Your task to perform on an android device: see creations saved in the google photos Image 0: 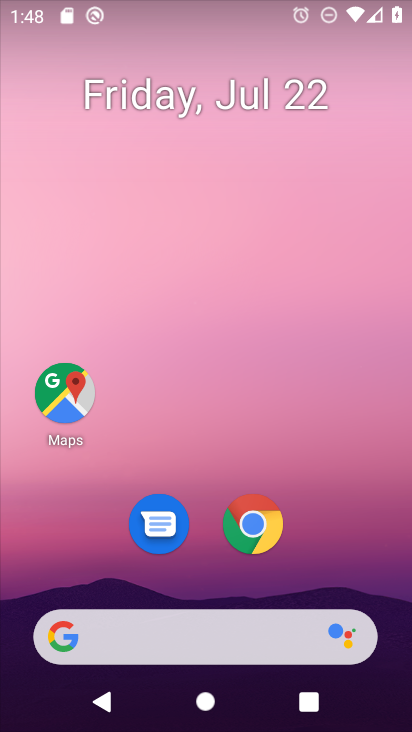
Step 0: drag from (339, 543) to (329, 100)
Your task to perform on an android device: see creations saved in the google photos Image 1: 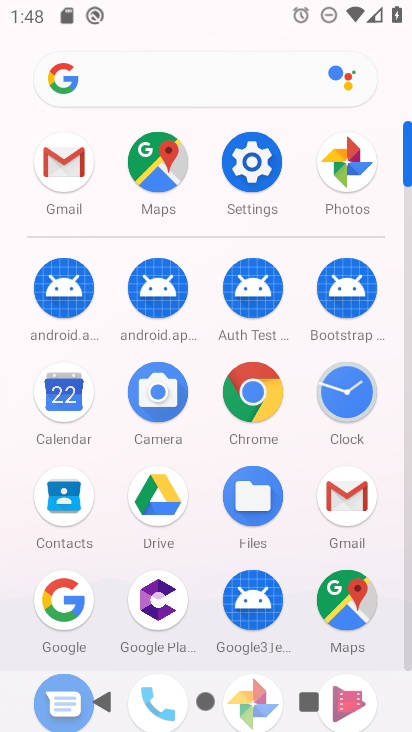
Step 1: click (339, 163)
Your task to perform on an android device: see creations saved in the google photos Image 2: 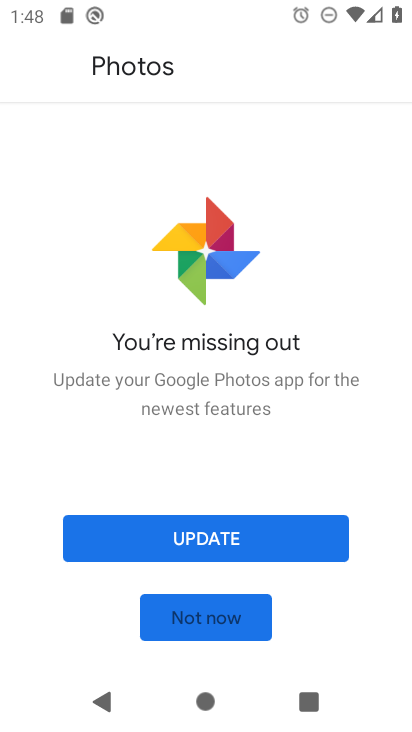
Step 2: click (244, 614)
Your task to perform on an android device: see creations saved in the google photos Image 3: 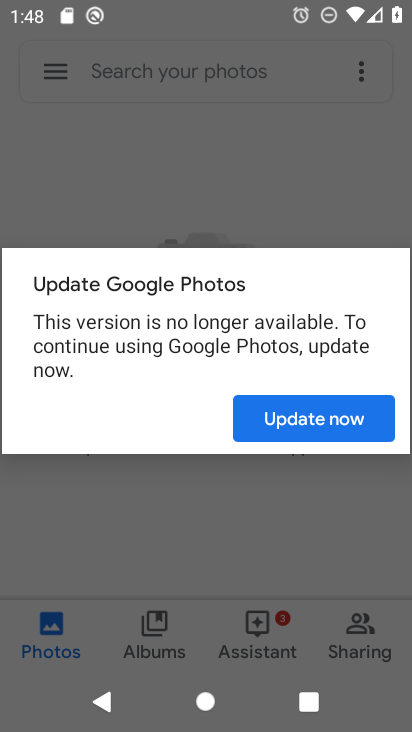
Step 3: click (322, 419)
Your task to perform on an android device: see creations saved in the google photos Image 4: 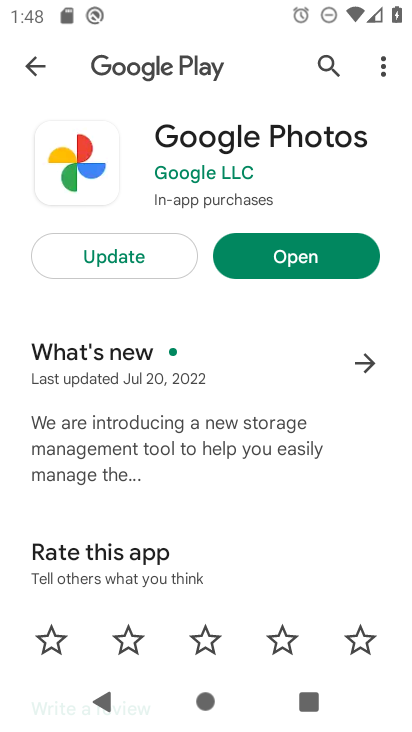
Step 4: click (313, 260)
Your task to perform on an android device: see creations saved in the google photos Image 5: 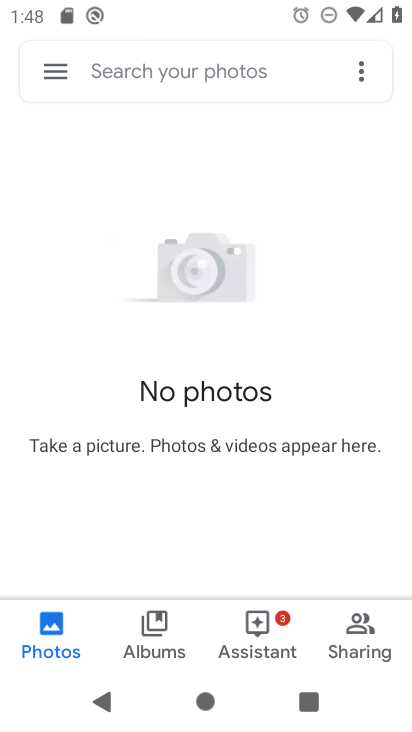
Step 5: click (247, 70)
Your task to perform on an android device: see creations saved in the google photos Image 6: 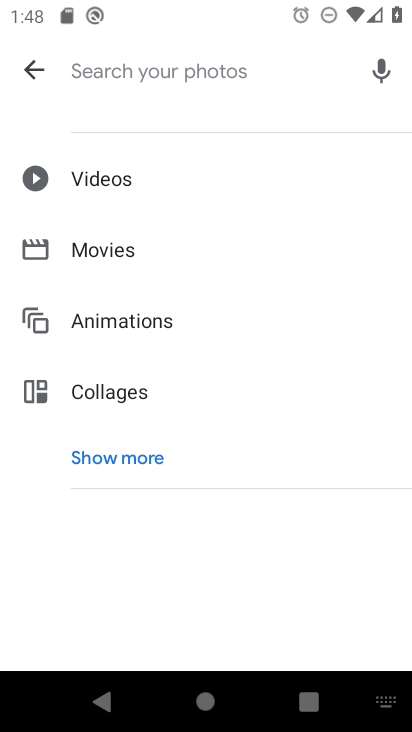
Step 6: click (129, 447)
Your task to perform on an android device: see creations saved in the google photos Image 7: 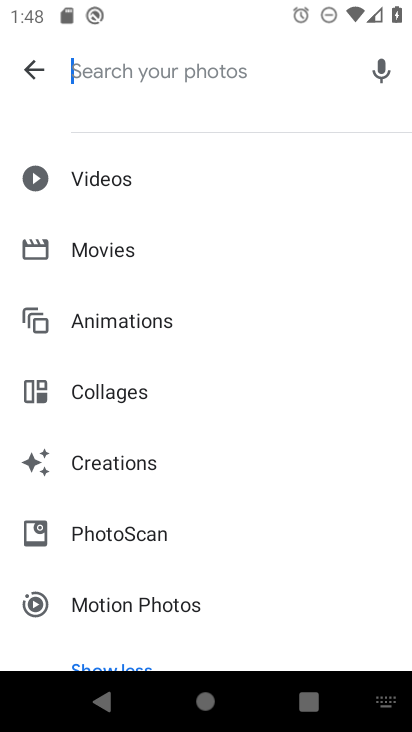
Step 7: click (126, 459)
Your task to perform on an android device: see creations saved in the google photos Image 8: 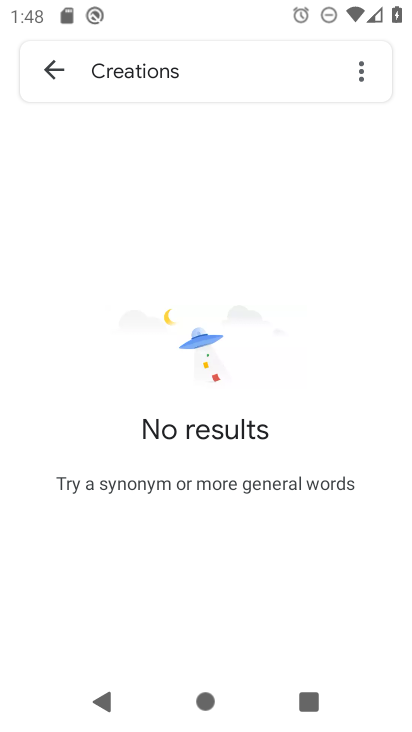
Step 8: task complete